Your task to perform on an android device: Open Google Image 0: 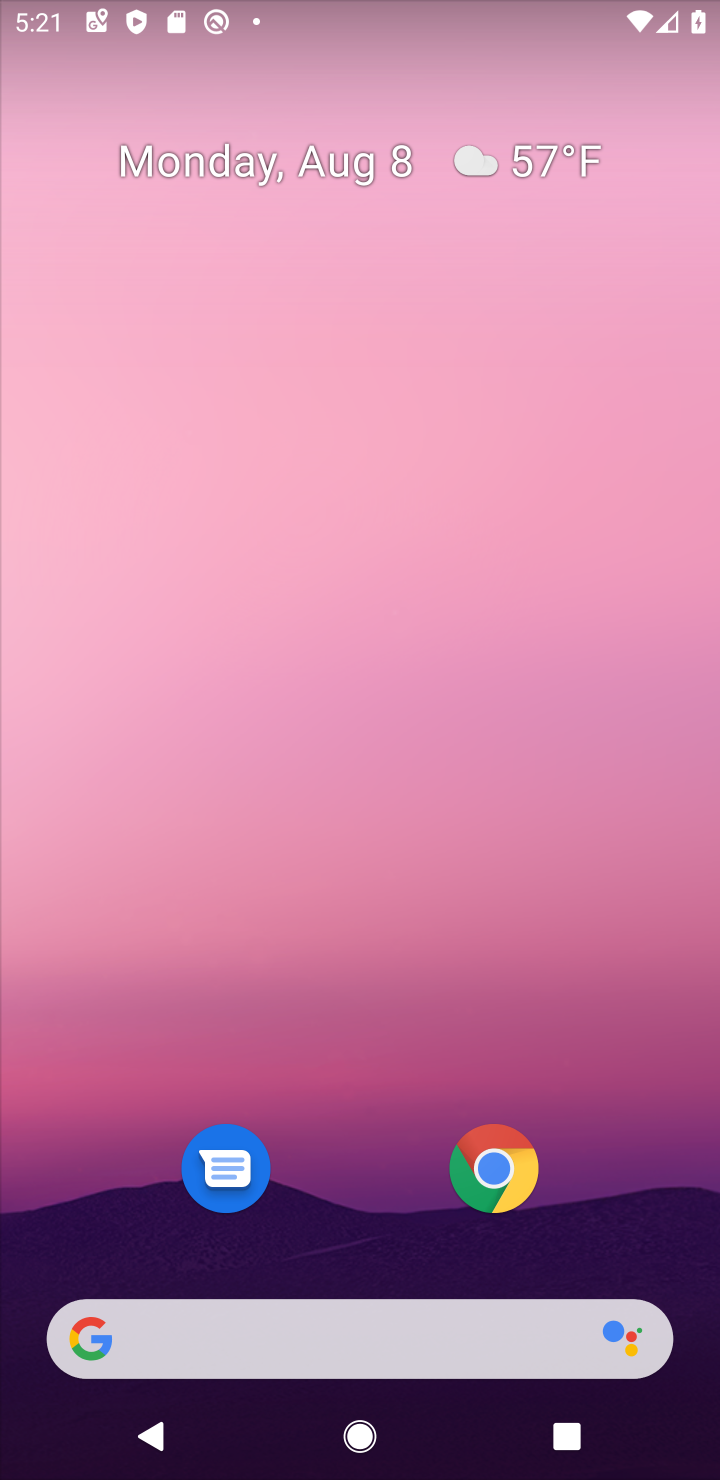
Step 0: drag from (400, 1368) to (244, 45)
Your task to perform on an android device: Open Google Image 1: 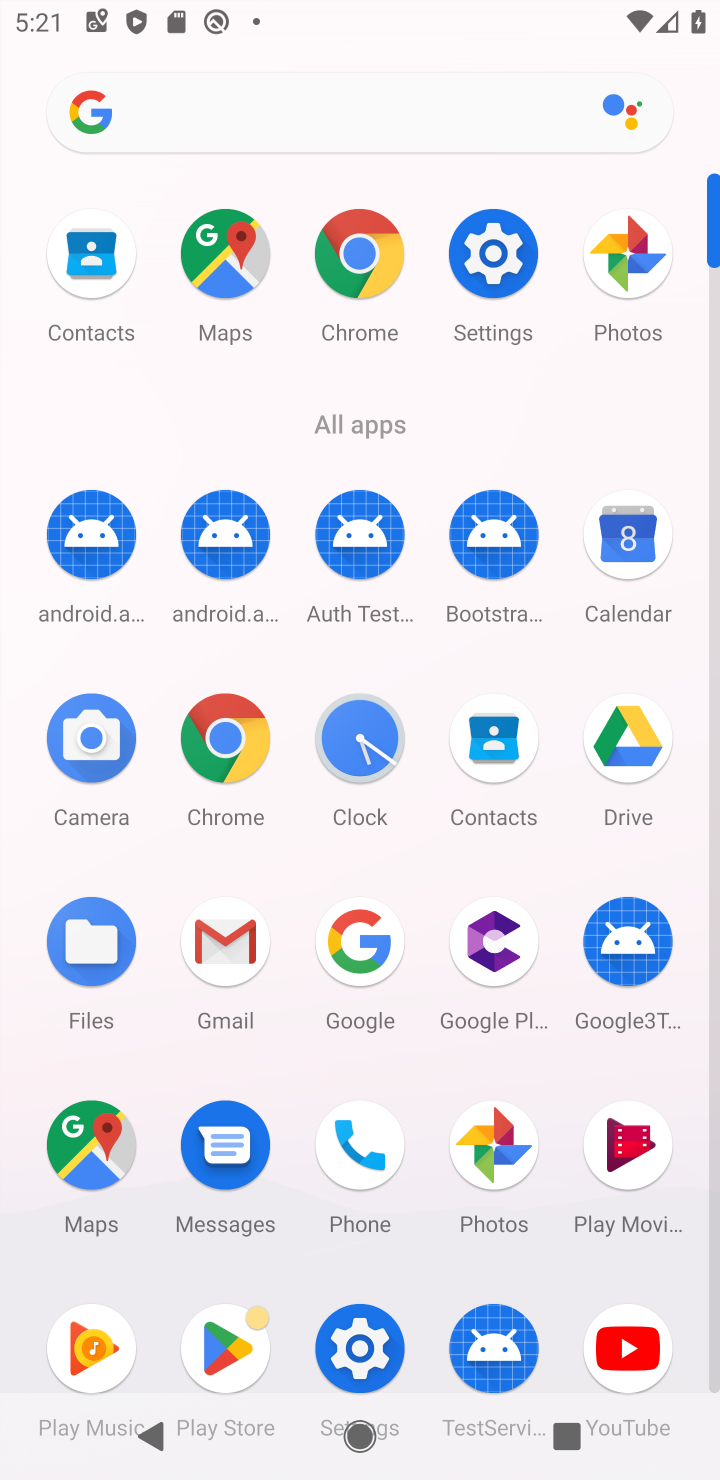
Step 1: click (361, 966)
Your task to perform on an android device: Open Google Image 2: 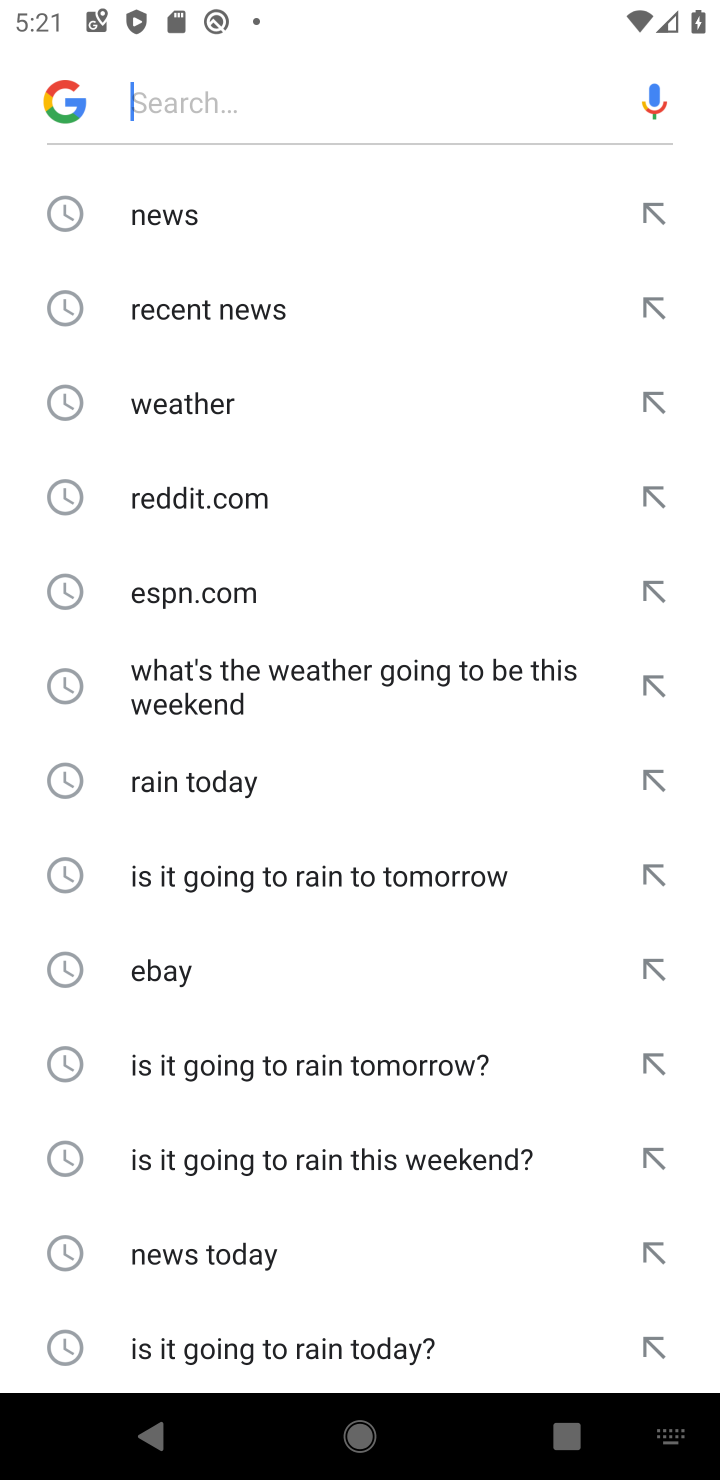
Step 2: task complete